Your task to perform on an android device: Empty the shopping cart on bestbuy. Add "logitech g pro" to the cart on bestbuy, then select checkout. Image 0: 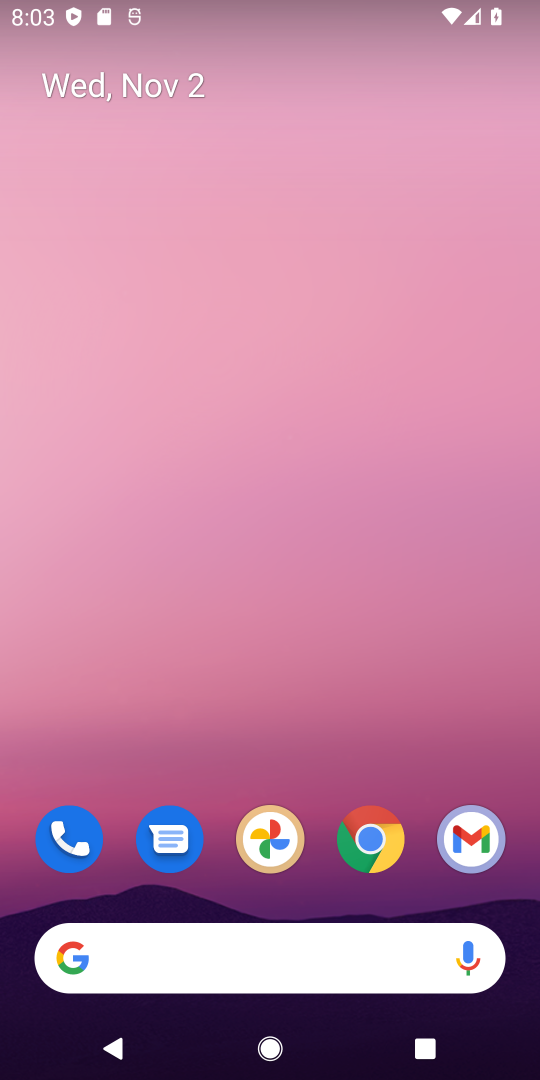
Step 0: click (369, 839)
Your task to perform on an android device: Empty the shopping cart on bestbuy. Add "logitech g pro" to the cart on bestbuy, then select checkout. Image 1: 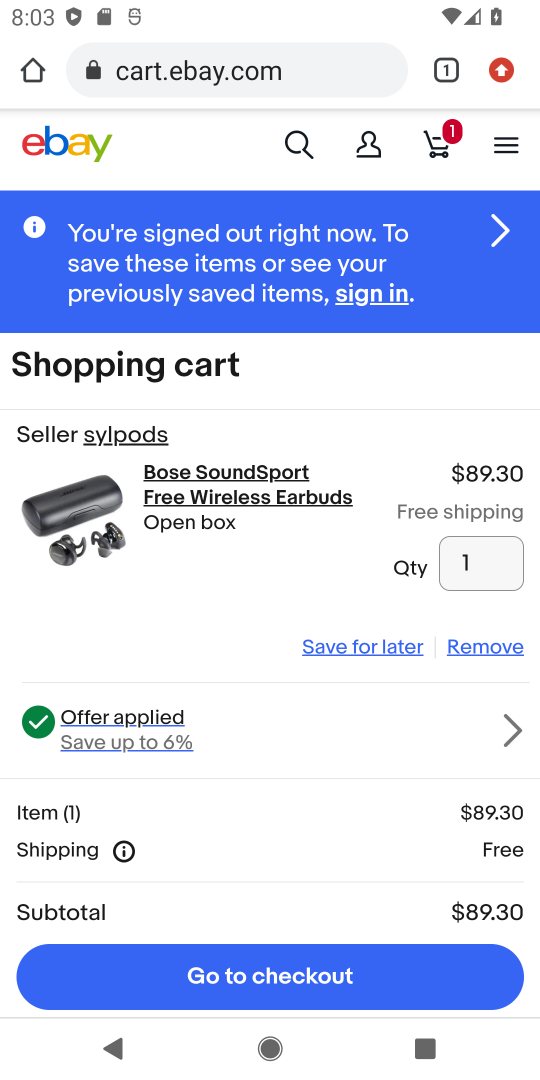
Step 1: click (268, 71)
Your task to perform on an android device: Empty the shopping cart on bestbuy. Add "logitech g pro" to the cart on bestbuy, then select checkout. Image 2: 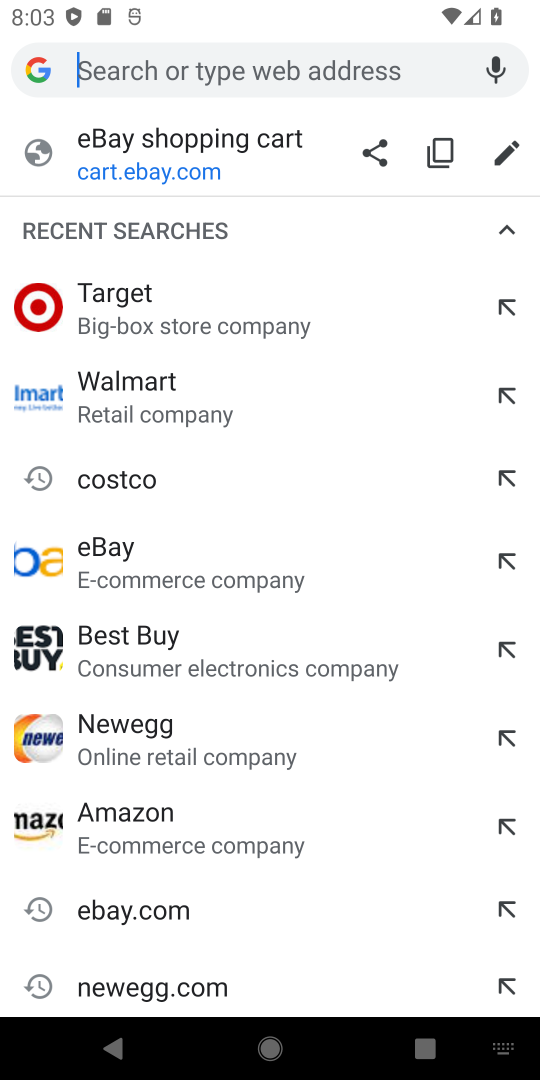
Step 2: type "bestbuy"
Your task to perform on an android device: Empty the shopping cart on bestbuy. Add "logitech g pro" to the cart on bestbuy, then select checkout. Image 3: 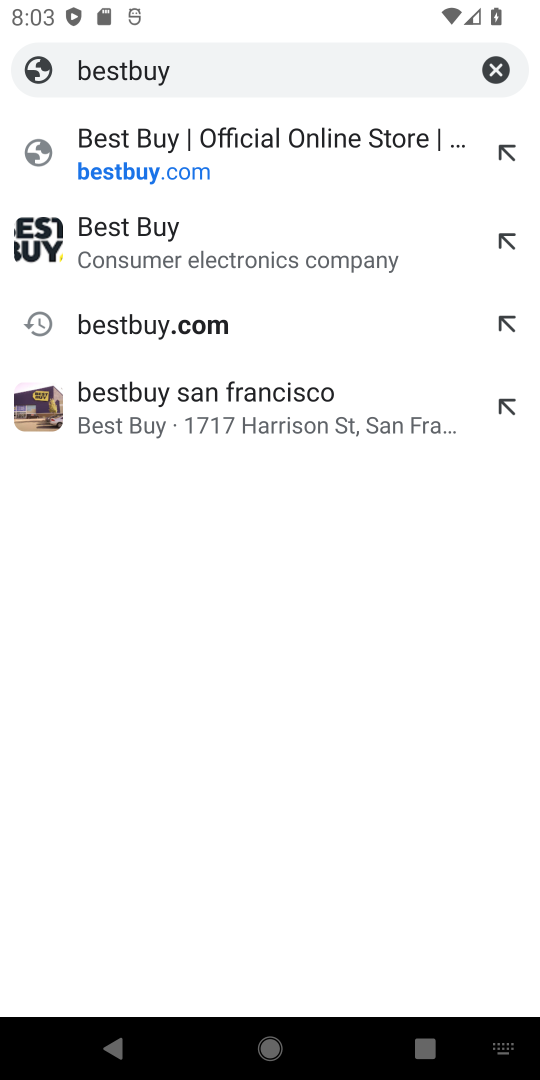
Step 3: click (217, 239)
Your task to perform on an android device: Empty the shopping cart on bestbuy. Add "logitech g pro" to the cart on bestbuy, then select checkout. Image 4: 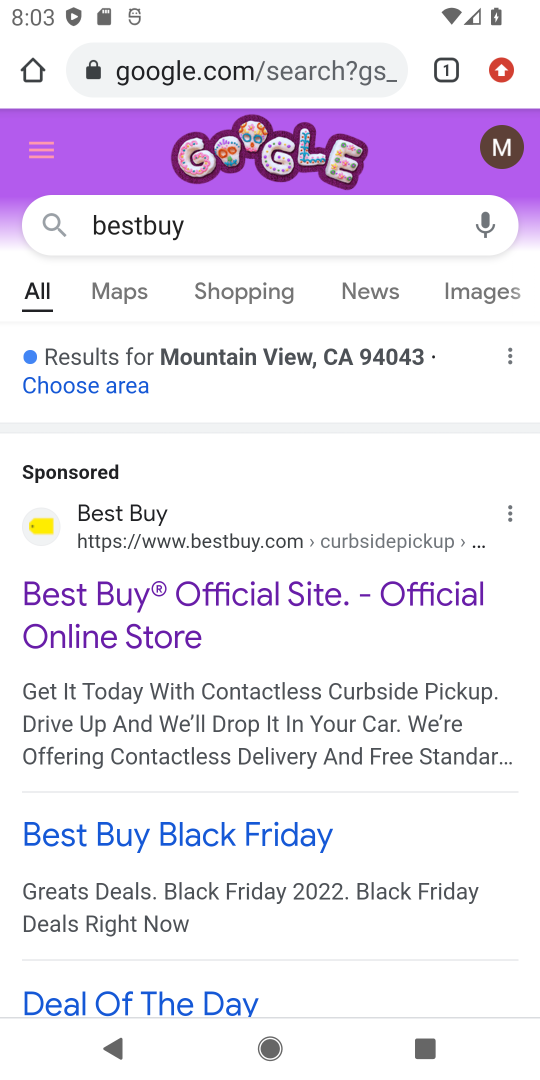
Step 4: drag from (341, 904) to (374, 234)
Your task to perform on an android device: Empty the shopping cart on bestbuy. Add "logitech g pro" to the cart on bestbuy, then select checkout. Image 5: 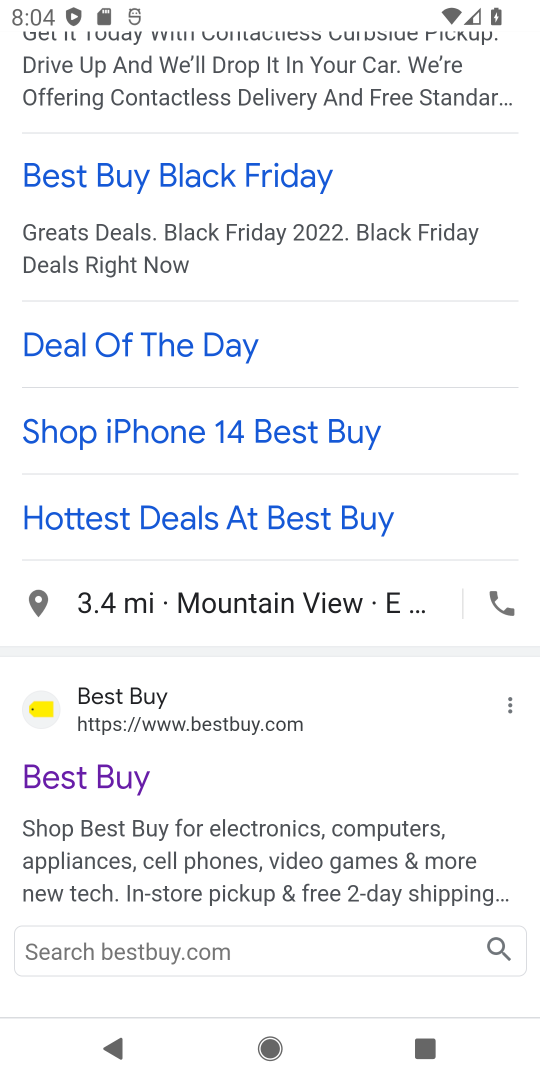
Step 5: click (260, 758)
Your task to perform on an android device: Empty the shopping cart on bestbuy. Add "logitech g pro" to the cart on bestbuy, then select checkout. Image 6: 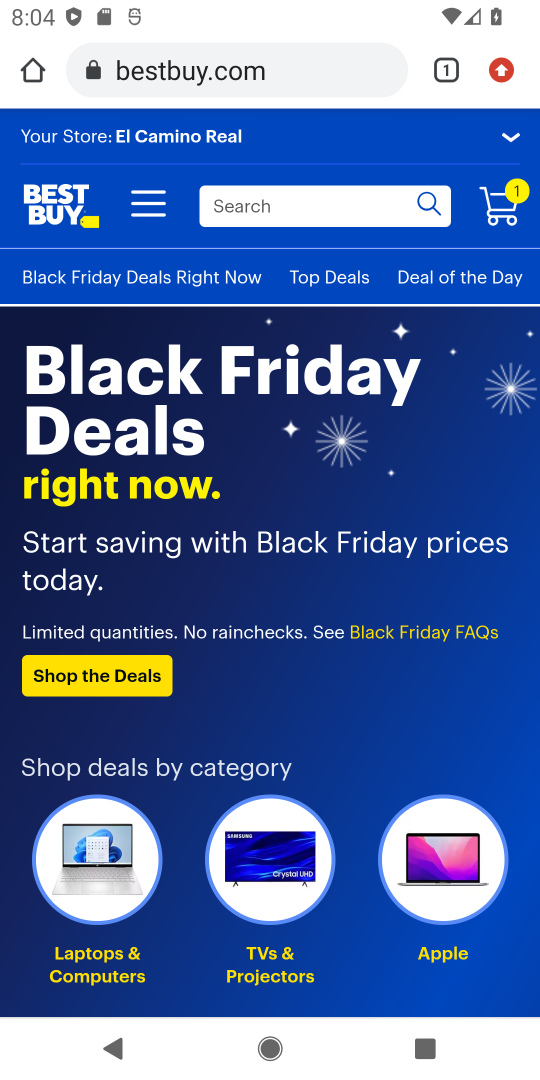
Step 6: click (506, 202)
Your task to perform on an android device: Empty the shopping cart on bestbuy. Add "logitech g pro" to the cart on bestbuy, then select checkout. Image 7: 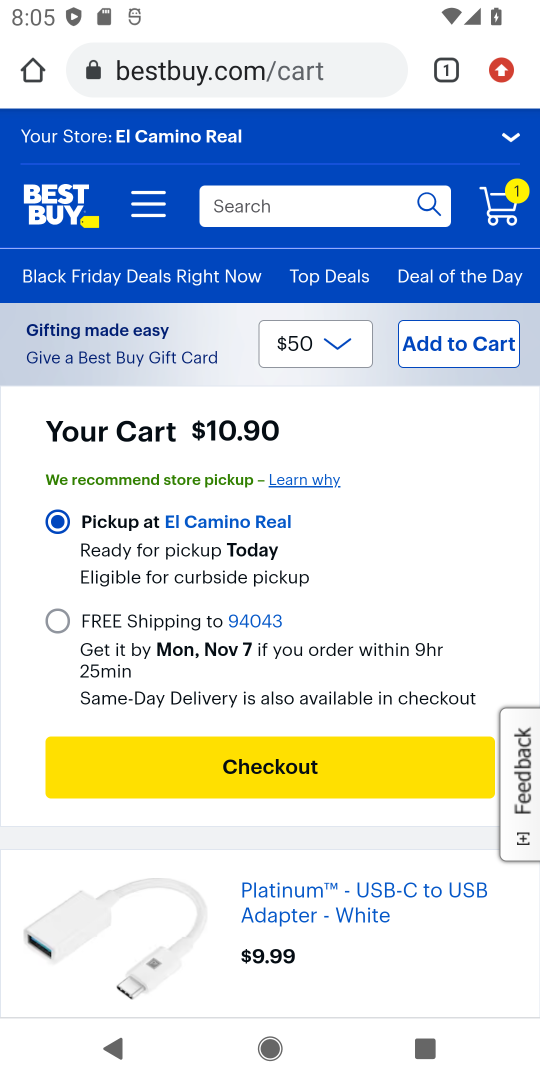
Step 7: click (316, 483)
Your task to perform on an android device: Empty the shopping cart on bestbuy. Add "logitech g pro" to the cart on bestbuy, then select checkout. Image 8: 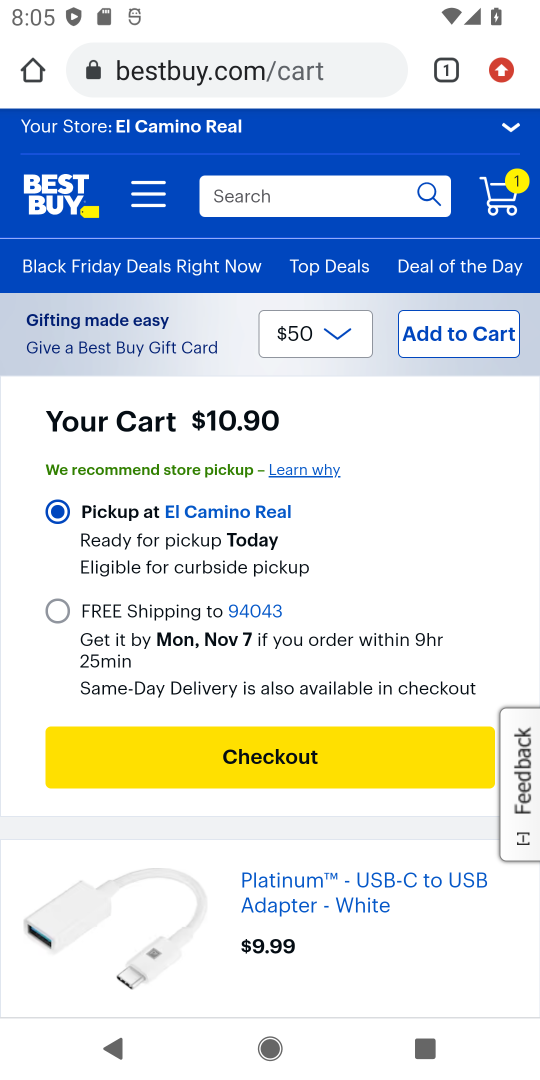
Step 8: drag from (346, 955) to (369, 473)
Your task to perform on an android device: Empty the shopping cart on bestbuy. Add "logitech g pro" to the cart on bestbuy, then select checkout. Image 9: 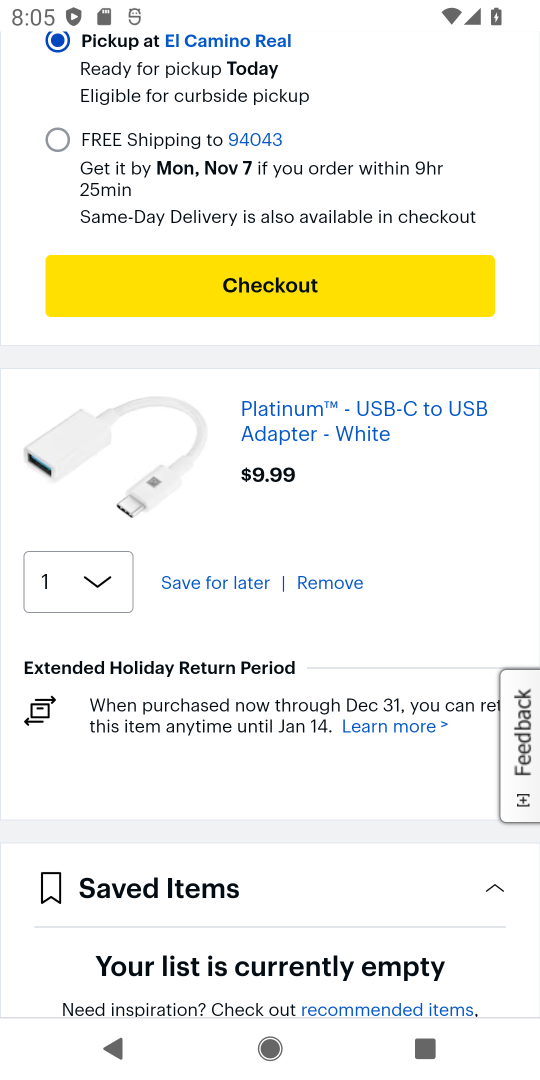
Step 9: click (489, 194)
Your task to perform on an android device: Empty the shopping cart on bestbuy. Add "logitech g pro" to the cart on bestbuy, then select checkout. Image 10: 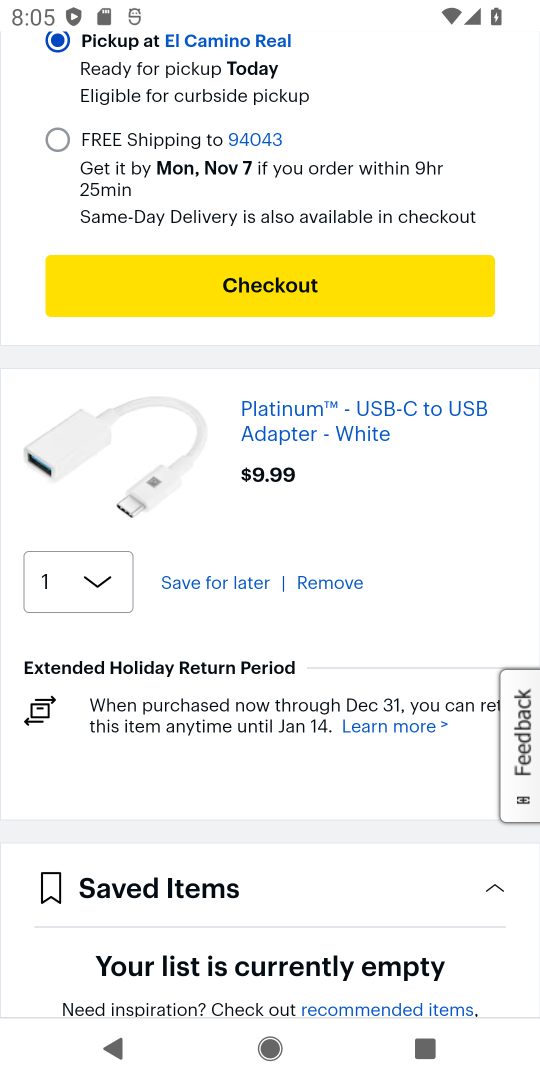
Step 10: click (319, 569)
Your task to perform on an android device: Empty the shopping cart on bestbuy. Add "logitech g pro" to the cart on bestbuy, then select checkout. Image 11: 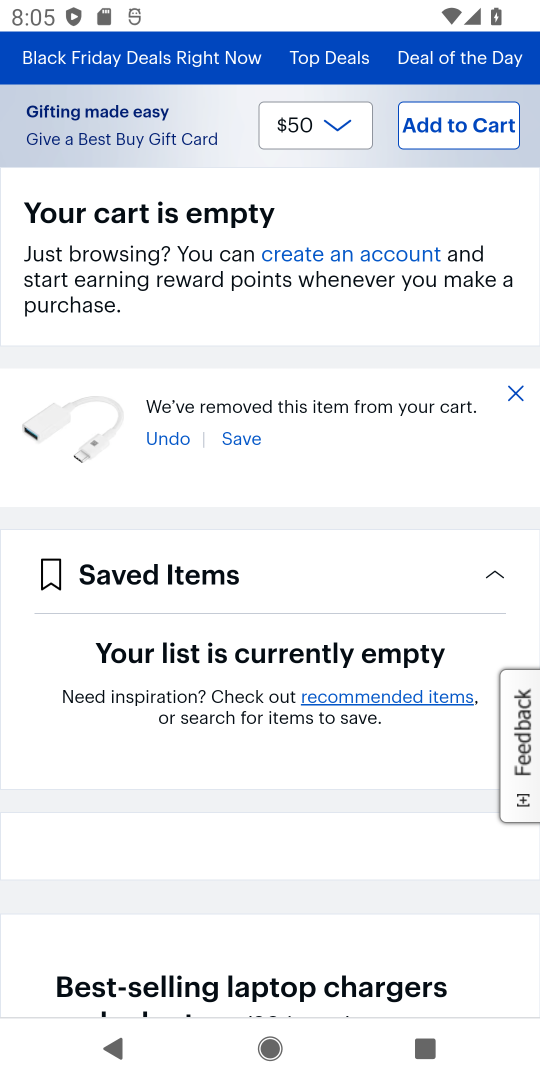
Step 11: drag from (307, 346) to (314, 819)
Your task to perform on an android device: Empty the shopping cart on bestbuy. Add "logitech g pro" to the cart on bestbuy, then select checkout. Image 12: 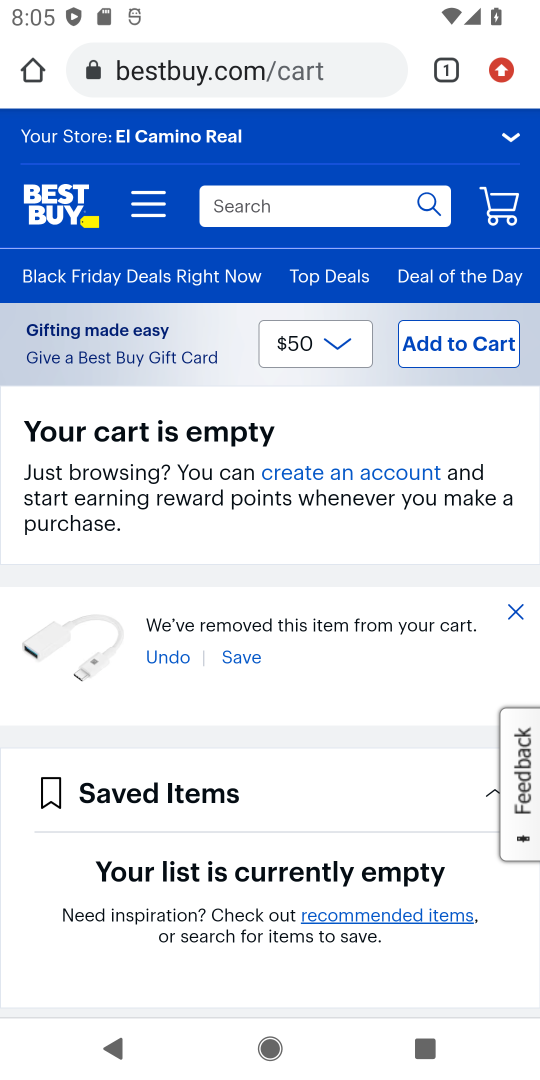
Step 12: click (307, 209)
Your task to perform on an android device: Empty the shopping cart on bestbuy. Add "logitech g pro" to the cart on bestbuy, then select checkout. Image 13: 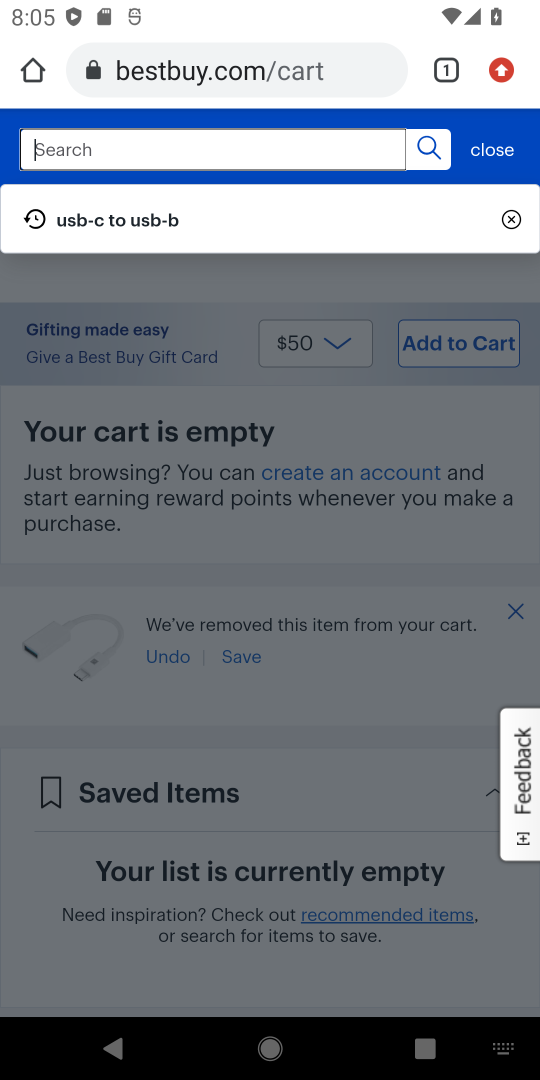
Step 13: type "logitech g pro"
Your task to perform on an android device: Empty the shopping cart on bestbuy. Add "logitech g pro" to the cart on bestbuy, then select checkout. Image 14: 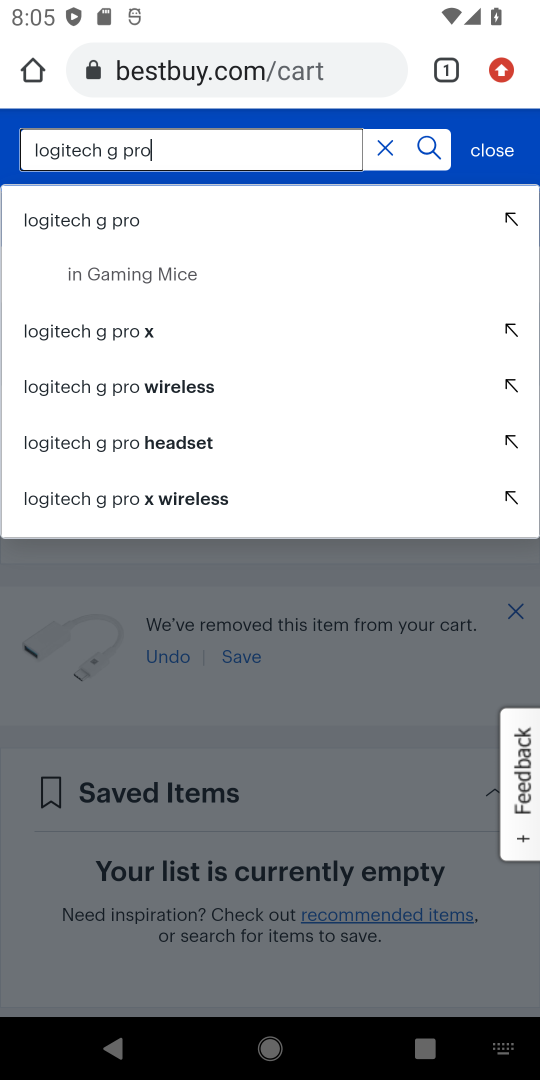
Step 14: click (112, 220)
Your task to perform on an android device: Empty the shopping cart on bestbuy. Add "logitech g pro" to the cart on bestbuy, then select checkout. Image 15: 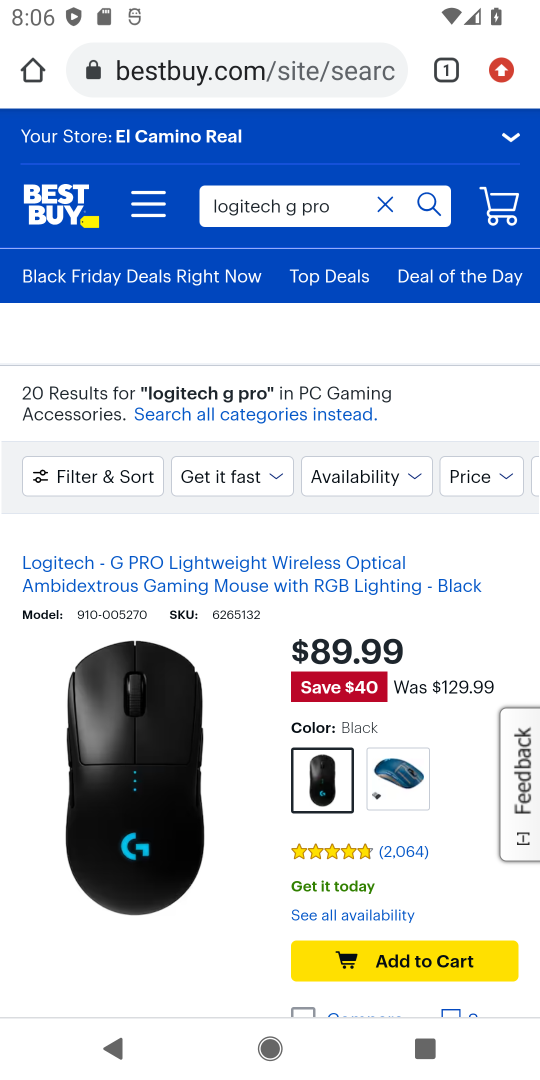
Step 15: click (399, 956)
Your task to perform on an android device: Empty the shopping cart on bestbuy. Add "logitech g pro" to the cart on bestbuy, then select checkout. Image 16: 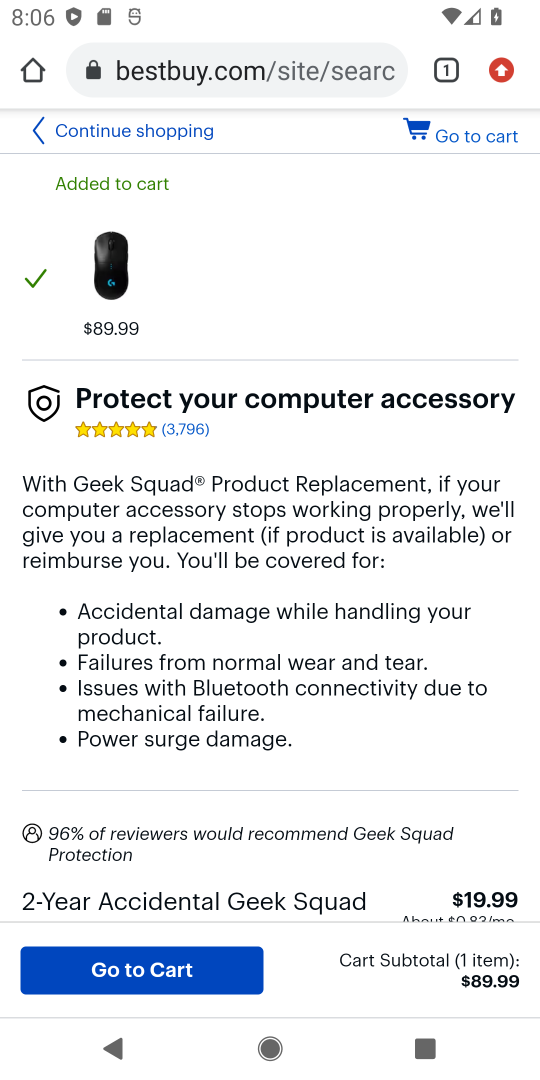
Step 16: click (199, 959)
Your task to perform on an android device: Empty the shopping cart on bestbuy. Add "logitech g pro" to the cart on bestbuy, then select checkout. Image 17: 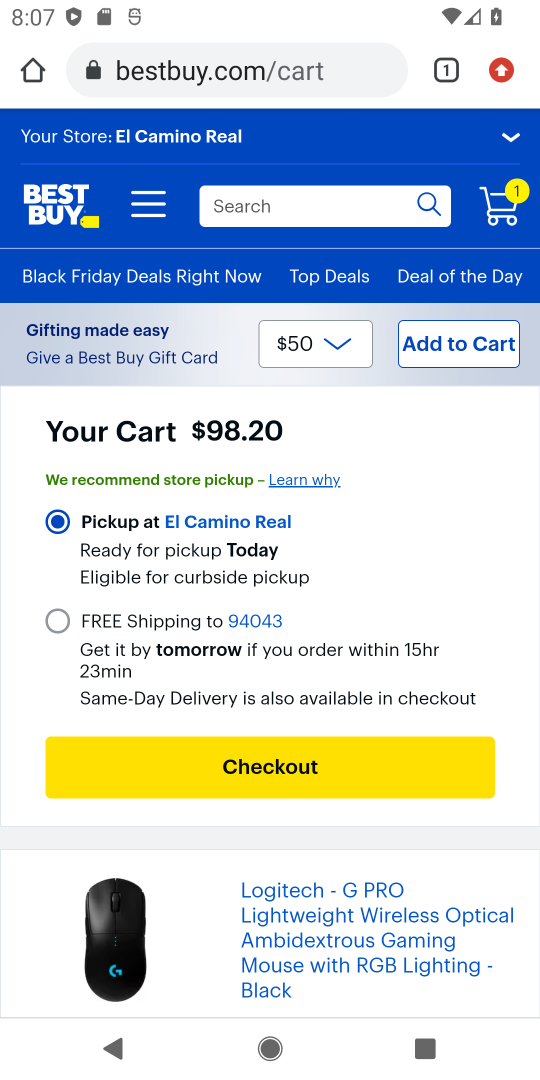
Step 17: click (285, 765)
Your task to perform on an android device: Empty the shopping cart on bestbuy. Add "logitech g pro" to the cart on bestbuy, then select checkout. Image 18: 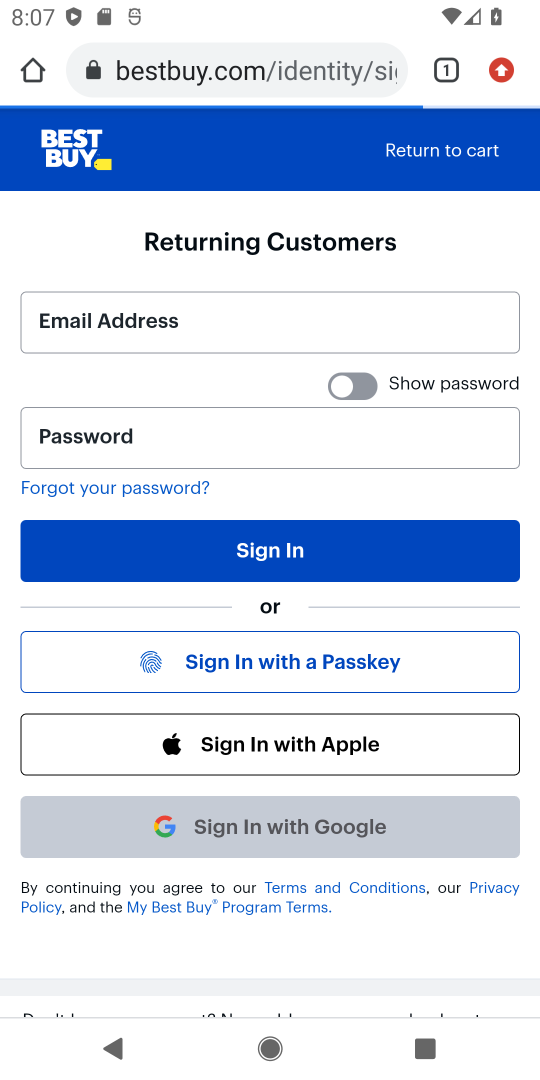
Step 18: task complete